Your task to perform on an android device: open a bookmark in the chrome app Image 0: 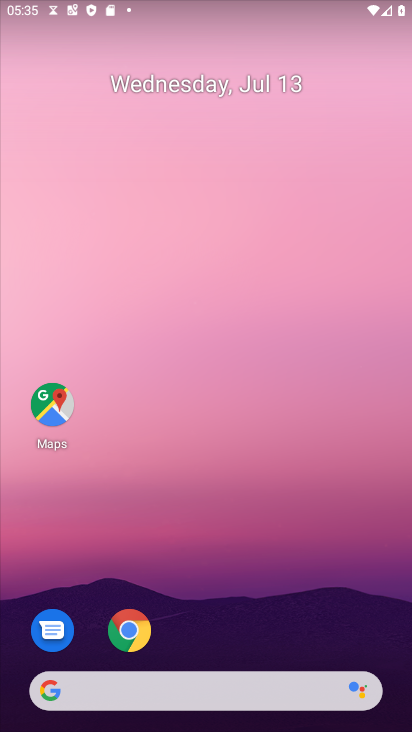
Step 0: drag from (301, 679) to (324, 3)
Your task to perform on an android device: open a bookmark in the chrome app Image 1: 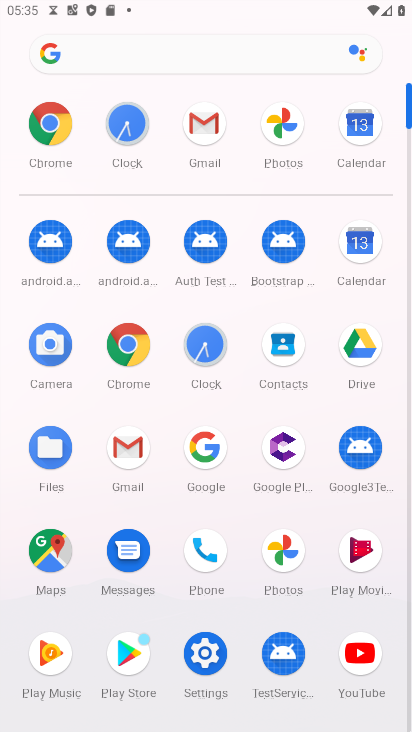
Step 1: click (132, 337)
Your task to perform on an android device: open a bookmark in the chrome app Image 2: 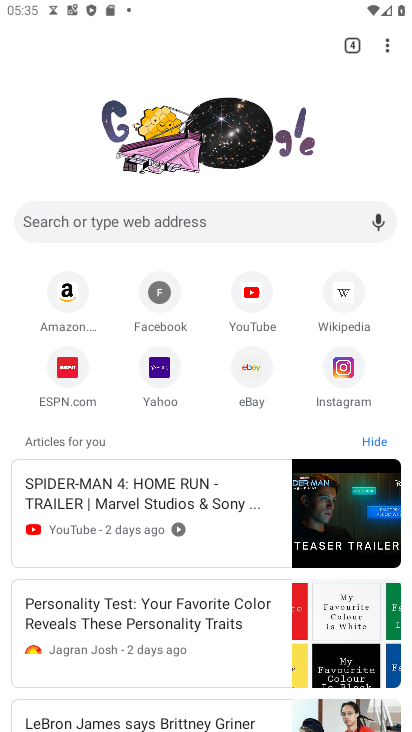
Step 2: task complete